Your task to perform on an android device: Add "rayovac triple a" to the cart on amazon Image 0: 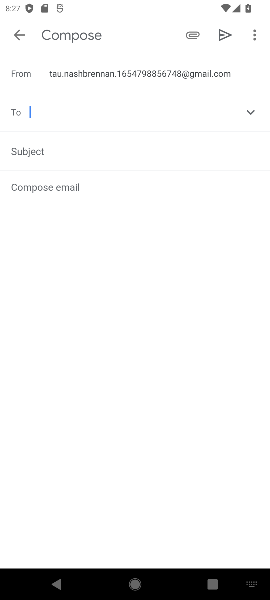
Step 0: press home button
Your task to perform on an android device: Add "rayovac triple a" to the cart on amazon Image 1: 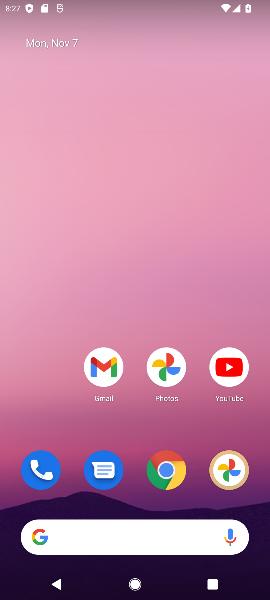
Step 1: click (165, 466)
Your task to perform on an android device: Add "rayovac triple a" to the cart on amazon Image 2: 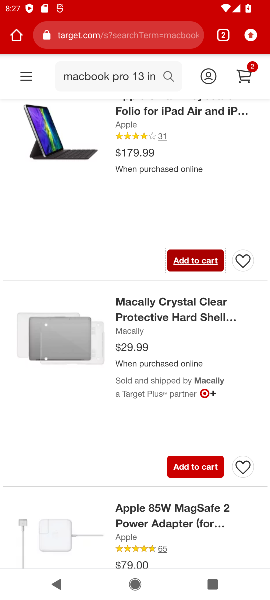
Step 2: click (117, 41)
Your task to perform on an android device: Add "rayovac triple a" to the cart on amazon Image 3: 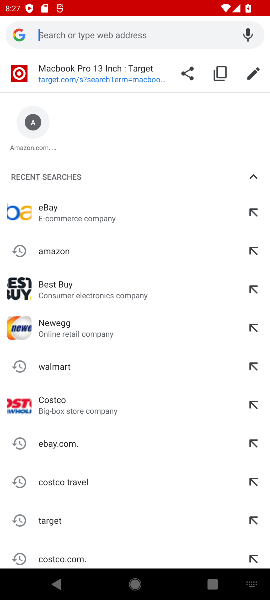
Step 3: type "amazon"
Your task to perform on an android device: Add "rayovac triple a" to the cart on amazon Image 4: 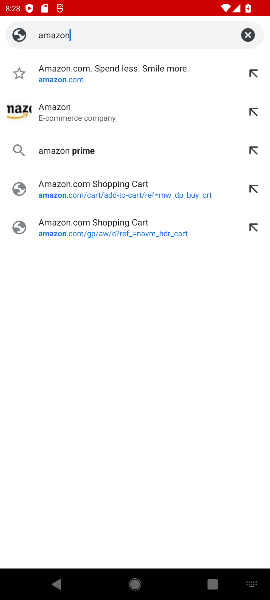
Step 4: click (107, 112)
Your task to perform on an android device: Add "rayovac triple a" to the cart on amazon Image 5: 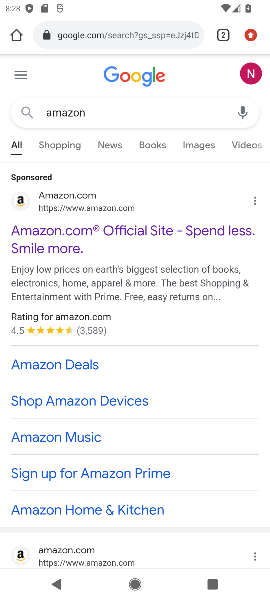
Step 5: click (59, 230)
Your task to perform on an android device: Add "rayovac triple a" to the cart on amazon Image 6: 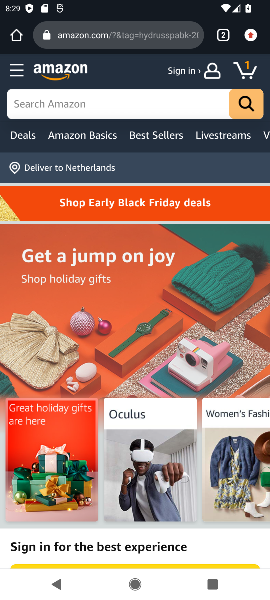
Step 6: click (61, 100)
Your task to perform on an android device: Add "rayovac triple a" to the cart on amazon Image 7: 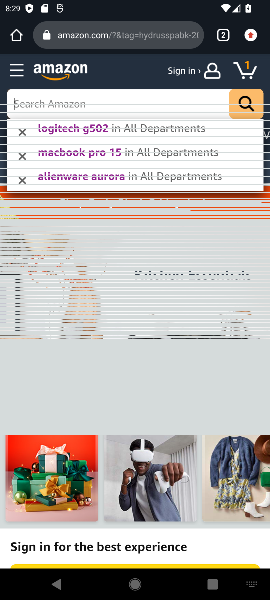
Step 7: type "rayovac"
Your task to perform on an android device: Add "rayovac triple a" to the cart on amazon Image 8: 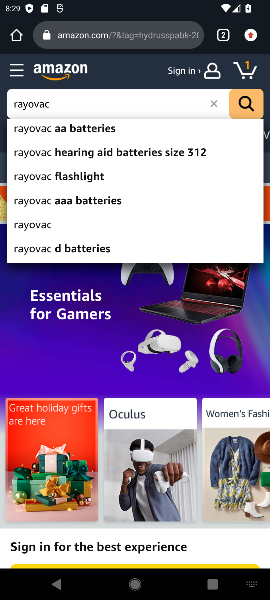
Step 8: click (248, 101)
Your task to perform on an android device: Add "rayovac triple a" to the cart on amazon Image 9: 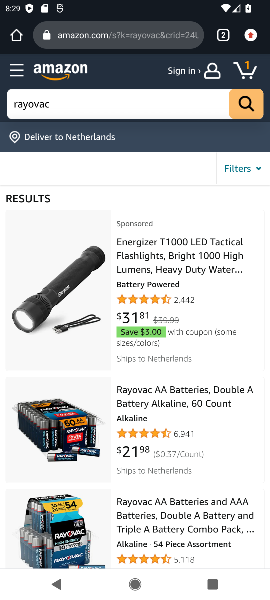
Step 9: click (218, 510)
Your task to perform on an android device: Add "rayovac triple a" to the cart on amazon Image 10: 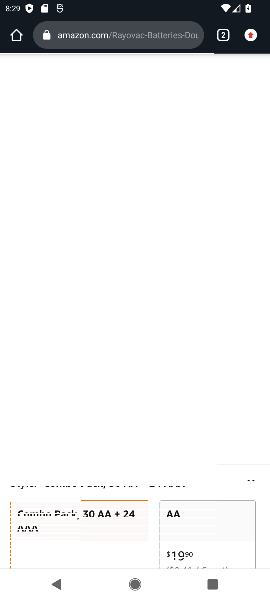
Step 10: drag from (165, 466) to (163, 116)
Your task to perform on an android device: Add "rayovac triple a" to the cart on amazon Image 11: 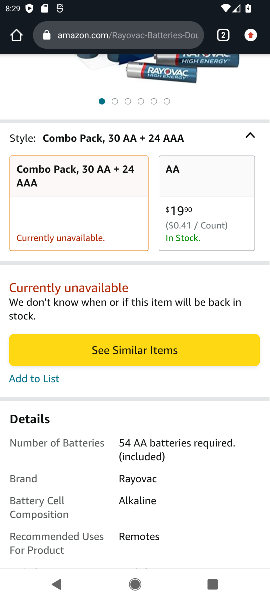
Step 11: click (59, 351)
Your task to perform on an android device: Add "rayovac triple a" to the cart on amazon Image 12: 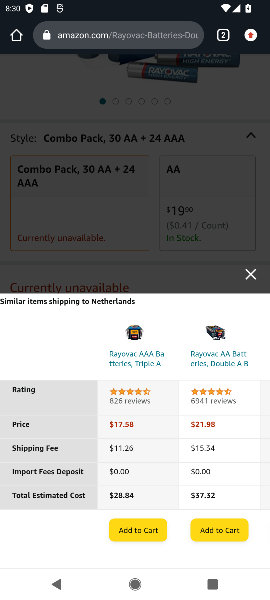
Step 12: click (127, 530)
Your task to perform on an android device: Add "rayovac triple a" to the cart on amazon Image 13: 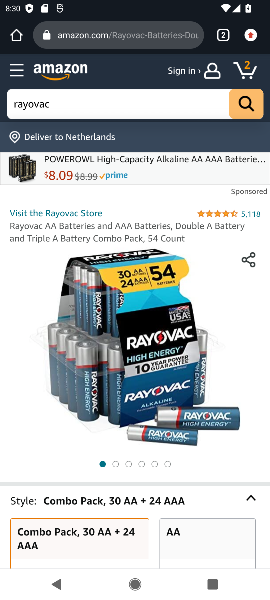
Step 13: task complete